Your task to perform on an android device: Open Reddit.com Image 0: 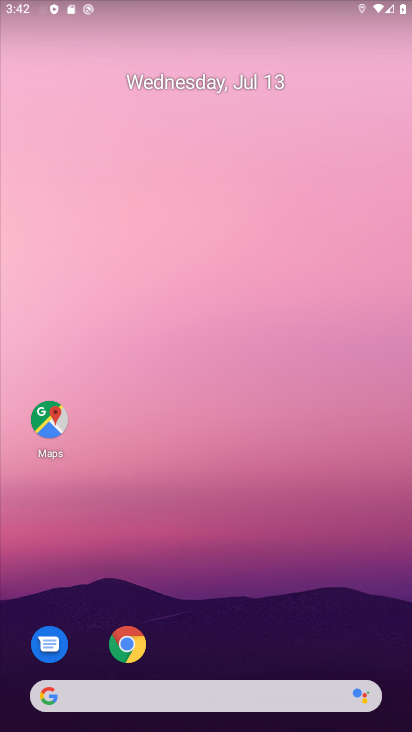
Step 0: click (127, 650)
Your task to perform on an android device: Open Reddit.com Image 1: 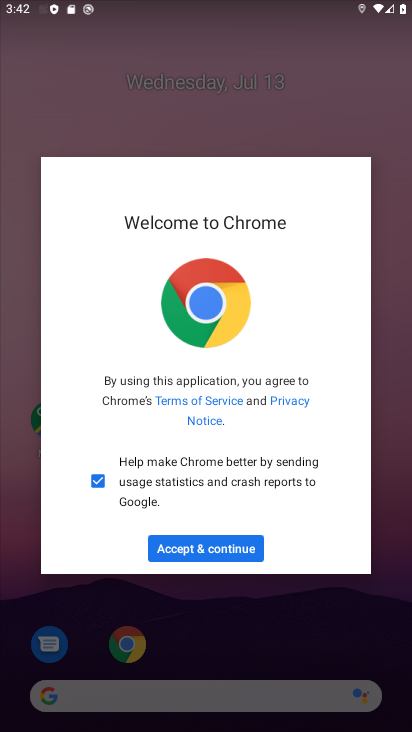
Step 1: click (201, 544)
Your task to perform on an android device: Open Reddit.com Image 2: 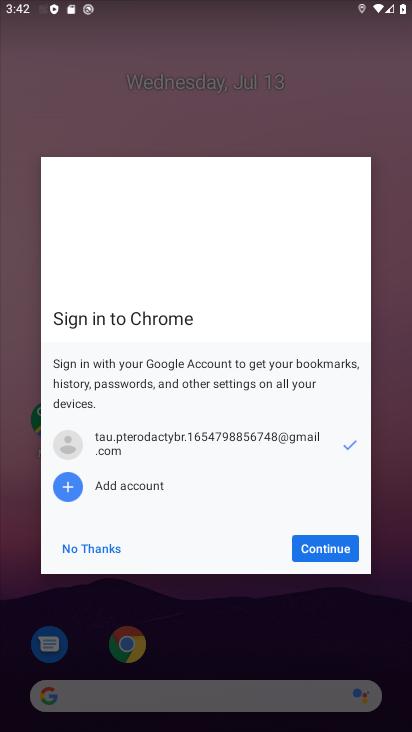
Step 2: click (308, 551)
Your task to perform on an android device: Open Reddit.com Image 3: 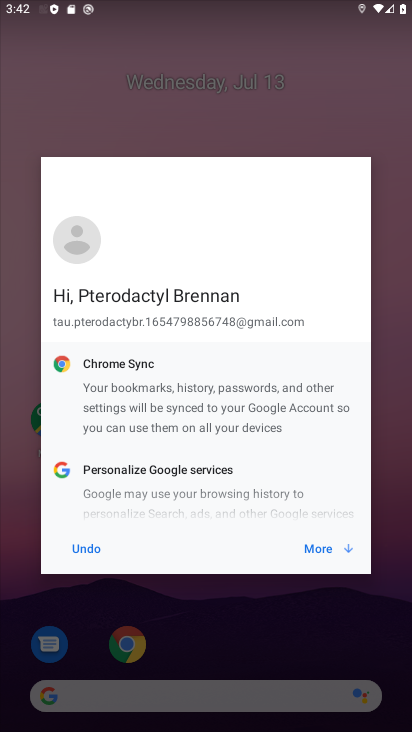
Step 3: click (318, 550)
Your task to perform on an android device: Open Reddit.com Image 4: 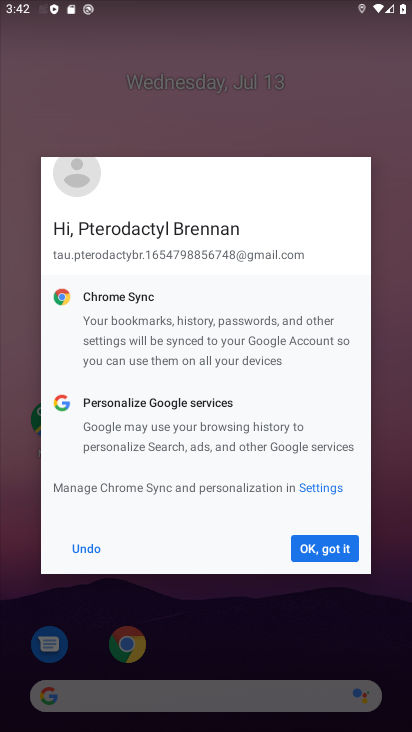
Step 4: click (327, 549)
Your task to perform on an android device: Open Reddit.com Image 5: 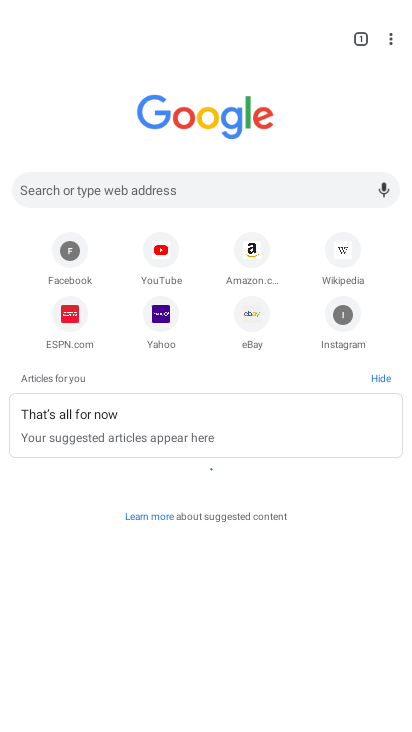
Step 5: click (220, 181)
Your task to perform on an android device: Open Reddit.com Image 6: 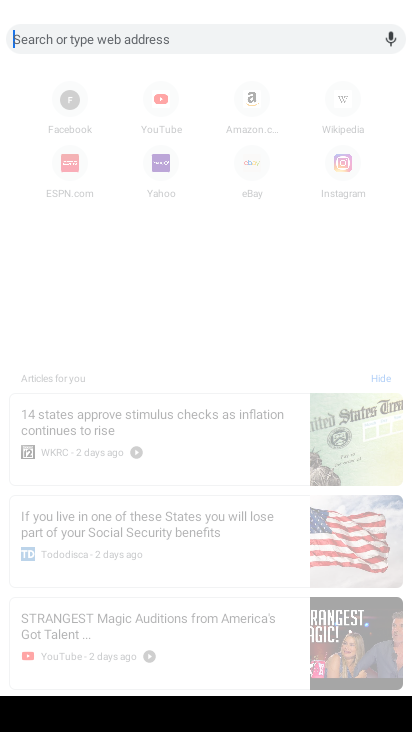
Step 6: type "reddit.com"
Your task to perform on an android device: Open Reddit.com Image 7: 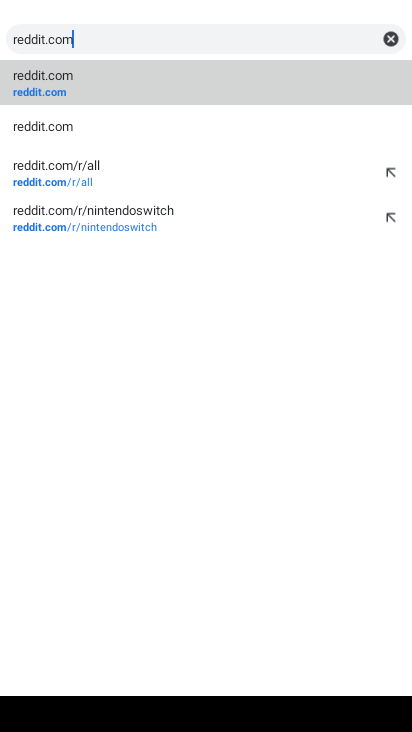
Step 7: click (222, 82)
Your task to perform on an android device: Open Reddit.com Image 8: 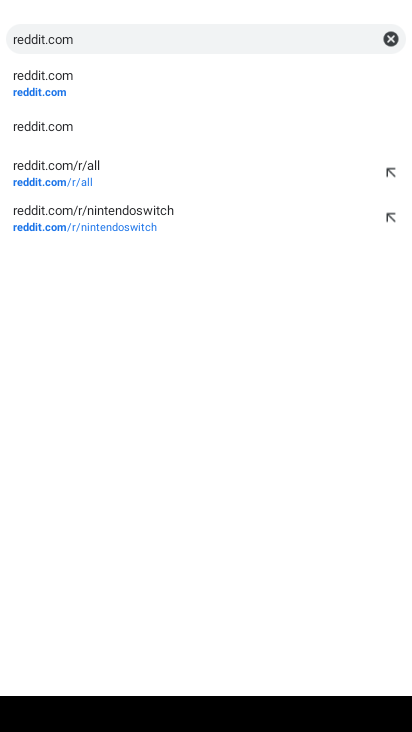
Step 8: click (58, 92)
Your task to perform on an android device: Open Reddit.com Image 9: 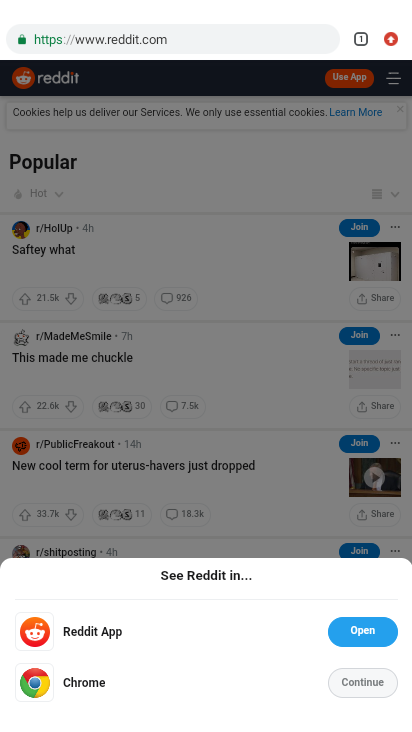
Step 9: task complete